Your task to perform on an android device: open chrome and create a bookmark for the current page Image 0: 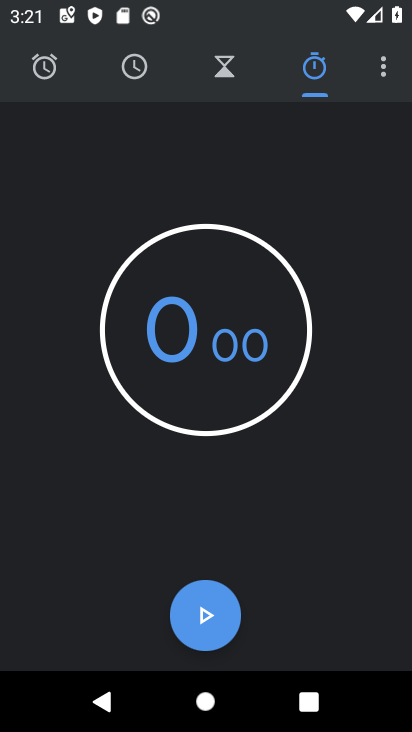
Step 0: press home button
Your task to perform on an android device: open chrome and create a bookmark for the current page Image 1: 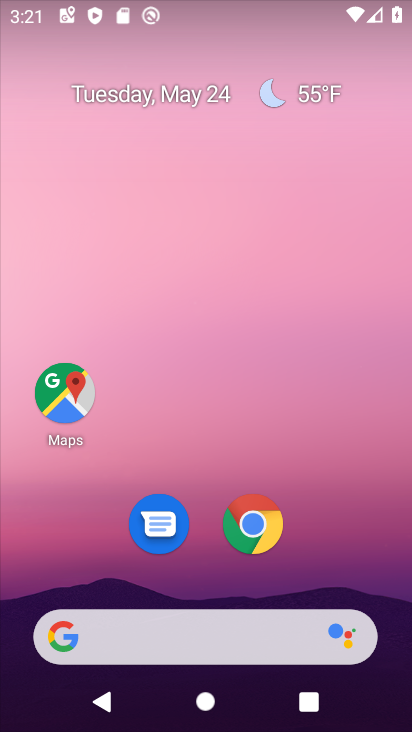
Step 1: click (258, 509)
Your task to perform on an android device: open chrome and create a bookmark for the current page Image 2: 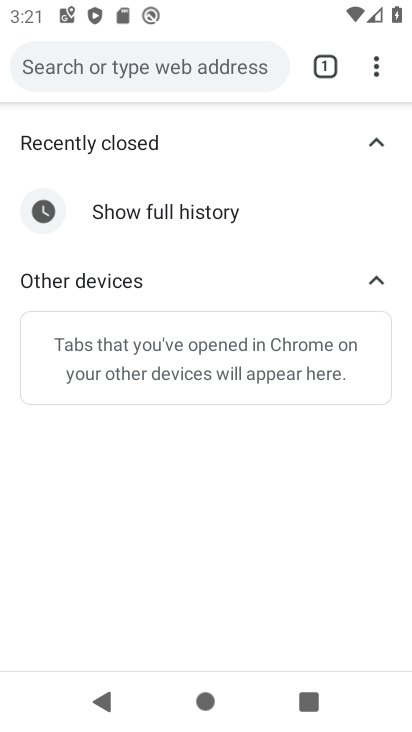
Step 2: click (379, 65)
Your task to perform on an android device: open chrome and create a bookmark for the current page Image 3: 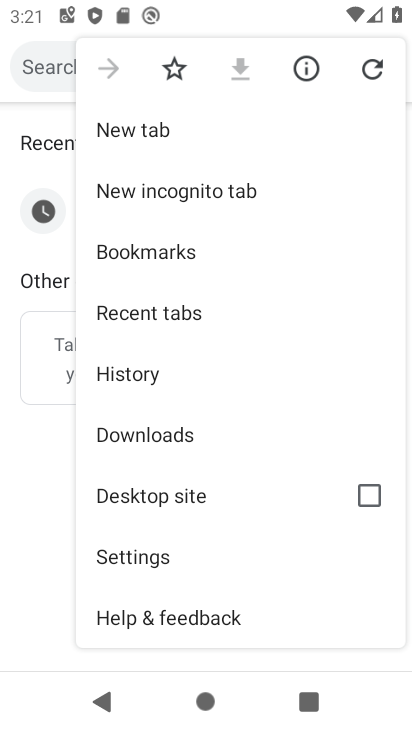
Step 3: click (173, 60)
Your task to perform on an android device: open chrome and create a bookmark for the current page Image 4: 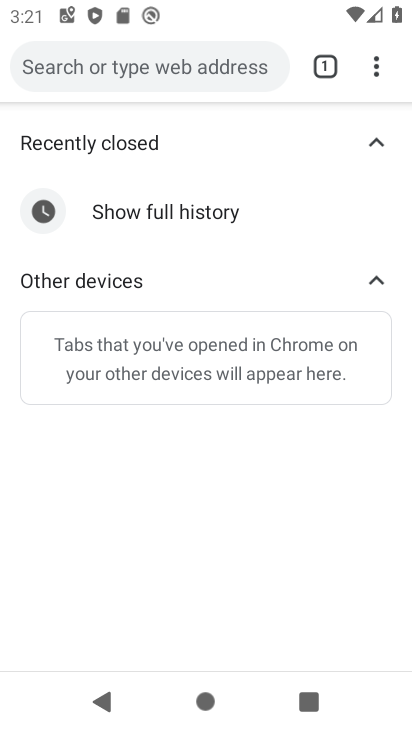
Step 4: task complete